Your task to perform on an android device: Open the calendar app, open the side menu, and click the "Day" option Image 0: 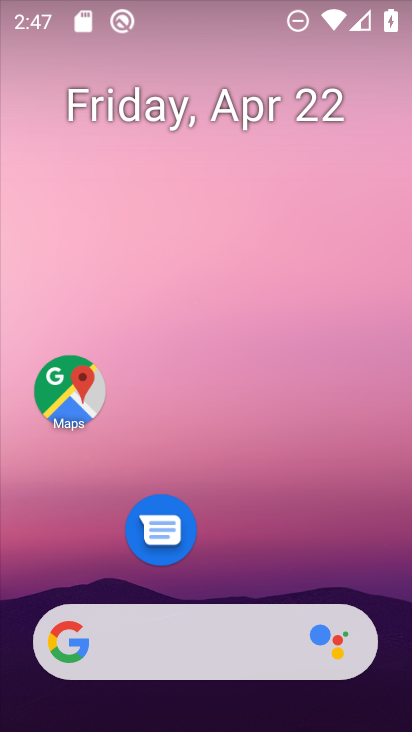
Step 0: drag from (223, 564) to (238, 0)
Your task to perform on an android device: Open the calendar app, open the side menu, and click the "Day" option Image 1: 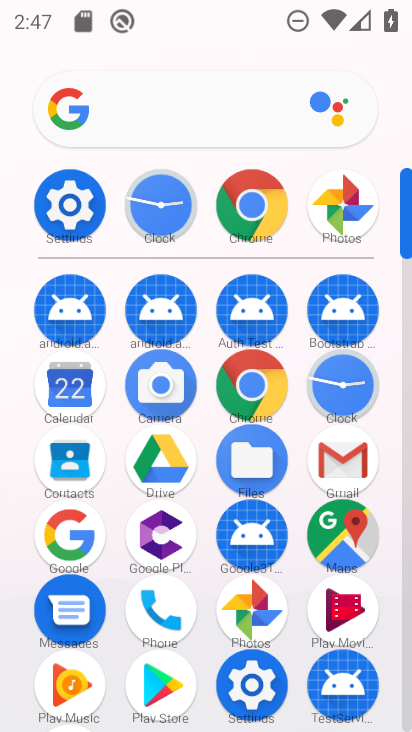
Step 1: click (65, 382)
Your task to perform on an android device: Open the calendar app, open the side menu, and click the "Day" option Image 2: 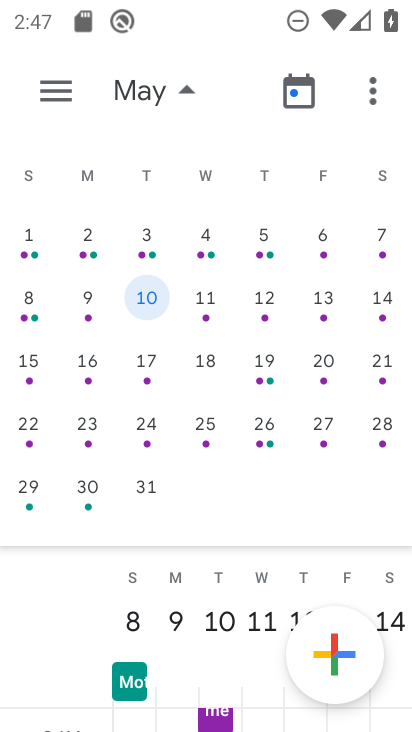
Step 2: click (53, 99)
Your task to perform on an android device: Open the calendar app, open the side menu, and click the "Day" option Image 3: 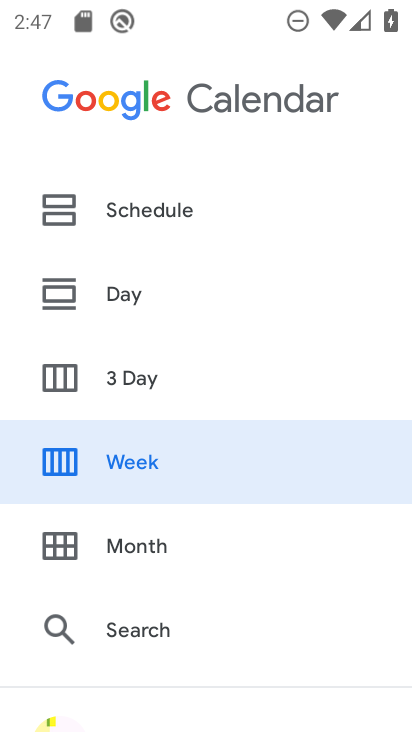
Step 3: click (118, 291)
Your task to perform on an android device: Open the calendar app, open the side menu, and click the "Day" option Image 4: 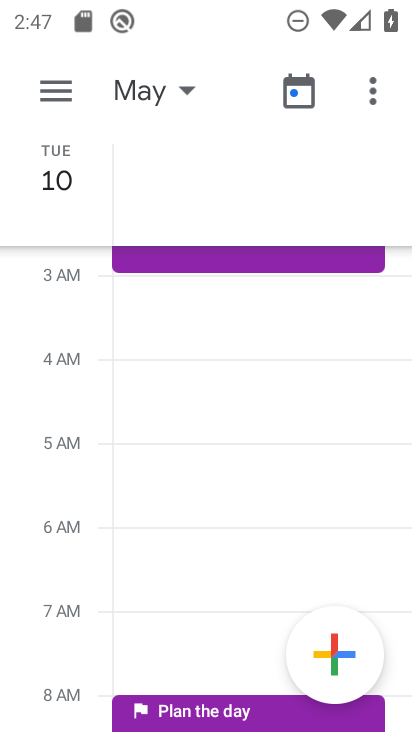
Step 4: task complete